Your task to perform on an android device: turn off airplane mode Image 0: 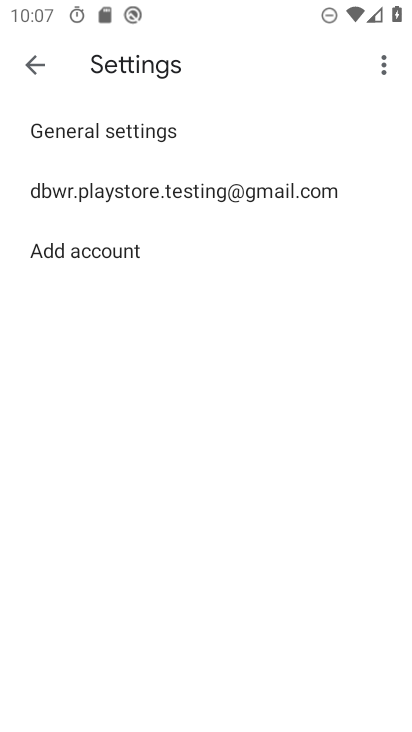
Step 0: press home button
Your task to perform on an android device: turn off airplane mode Image 1: 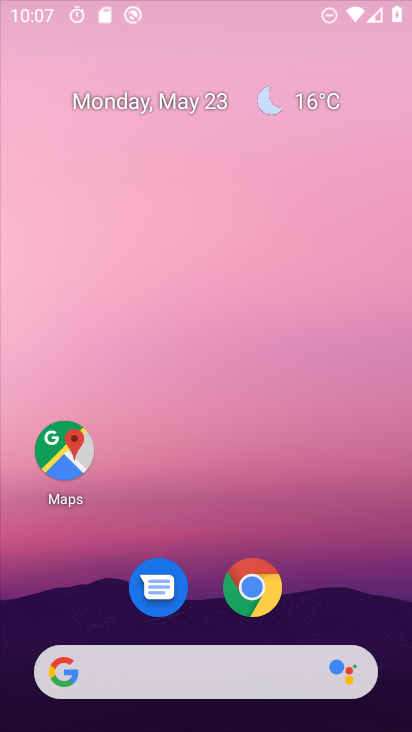
Step 1: task complete